Your task to perform on an android device: When is my next appointment? Image 0: 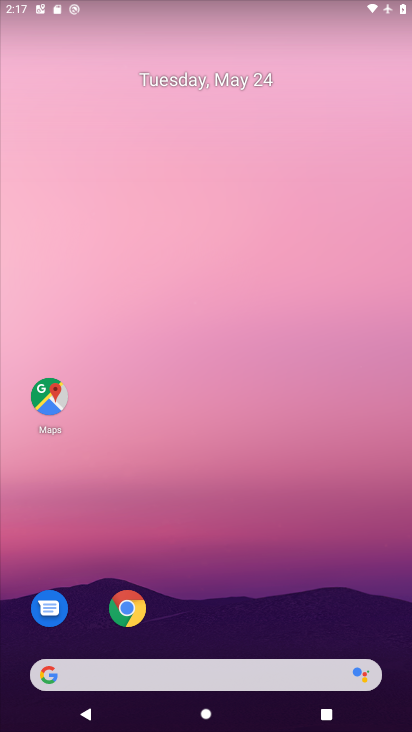
Step 0: drag from (318, 624) to (210, 38)
Your task to perform on an android device: When is my next appointment? Image 1: 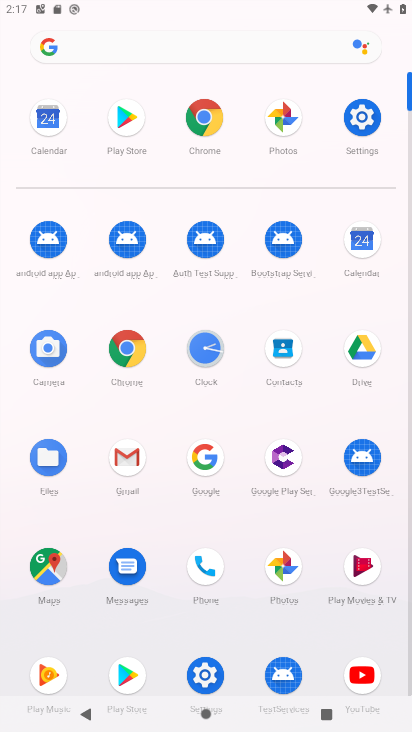
Step 1: click (367, 113)
Your task to perform on an android device: When is my next appointment? Image 2: 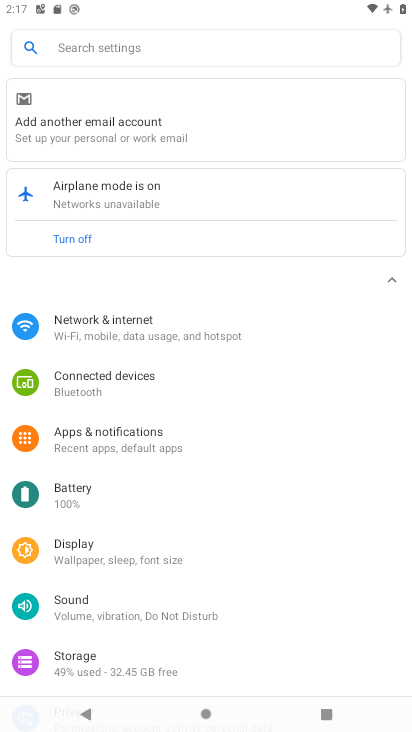
Step 2: press home button
Your task to perform on an android device: When is my next appointment? Image 3: 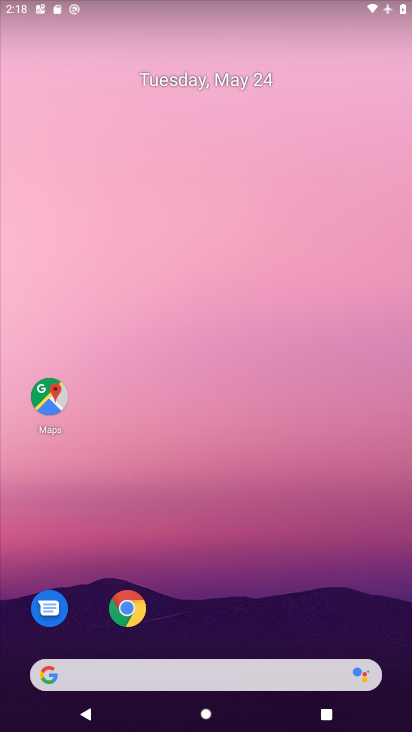
Step 3: drag from (280, 598) to (209, 84)
Your task to perform on an android device: When is my next appointment? Image 4: 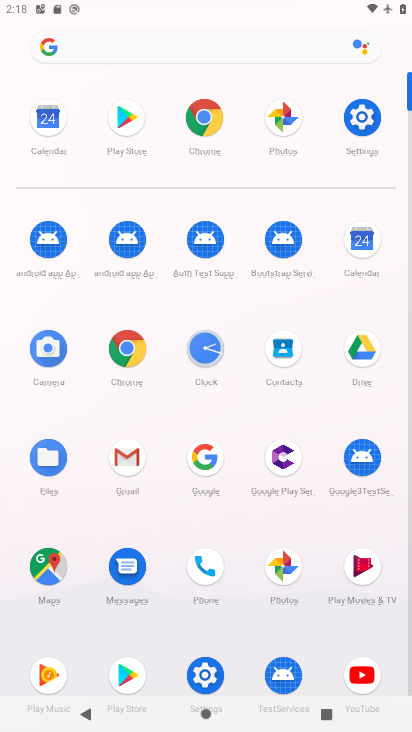
Step 4: click (341, 133)
Your task to perform on an android device: When is my next appointment? Image 5: 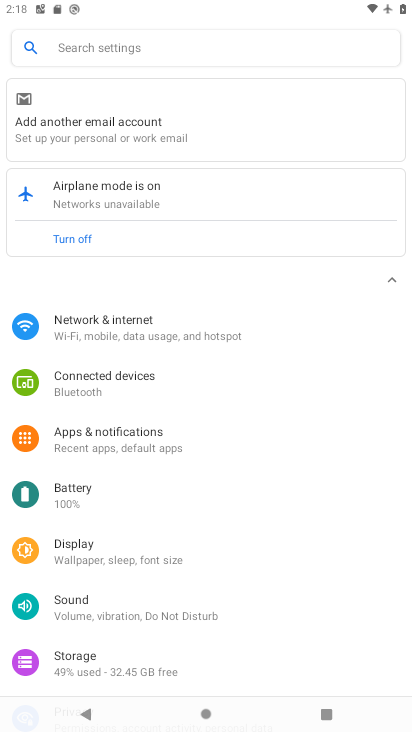
Step 5: press home button
Your task to perform on an android device: When is my next appointment? Image 6: 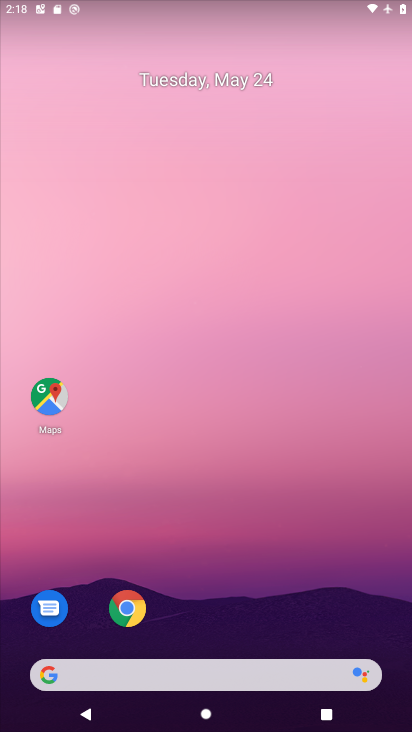
Step 6: drag from (308, 595) to (173, 88)
Your task to perform on an android device: When is my next appointment? Image 7: 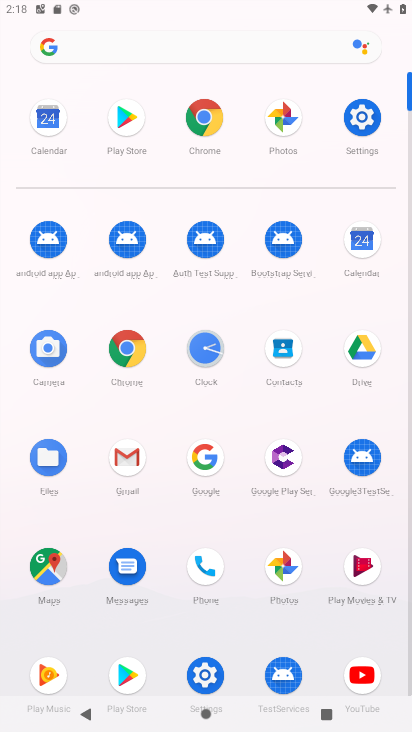
Step 7: click (46, 142)
Your task to perform on an android device: When is my next appointment? Image 8: 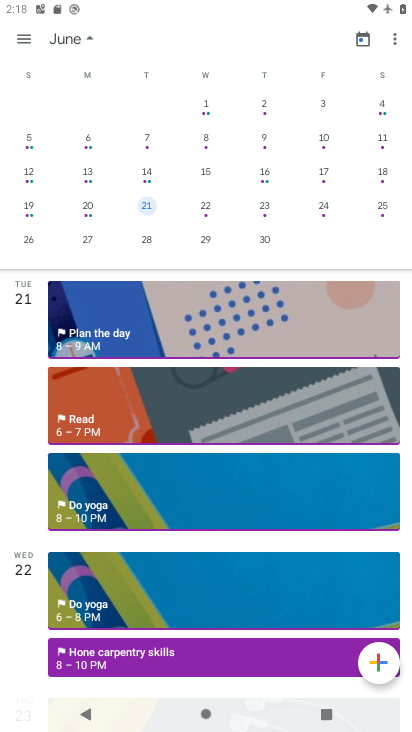
Step 8: task complete